Your task to perform on an android device: Show me popular videos on Youtube Image 0: 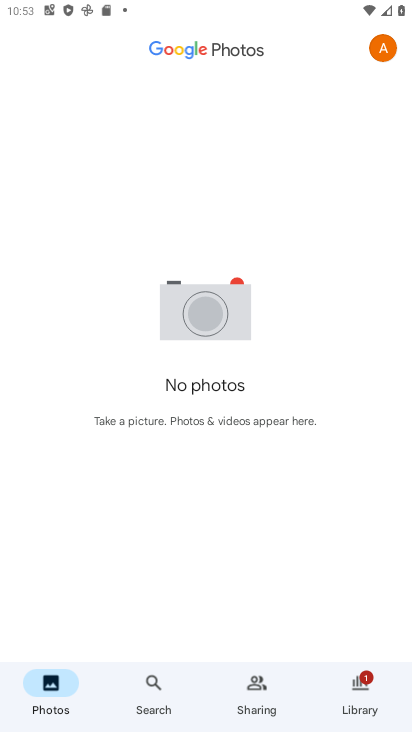
Step 0: press home button
Your task to perform on an android device: Show me popular videos on Youtube Image 1: 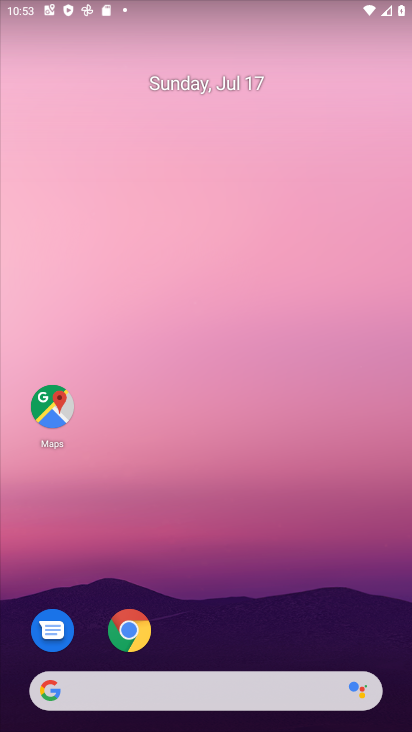
Step 1: drag from (224, 636) to (229, 22)
Your task to perform on an android device: Show me popular videos on Youtube Image 2: 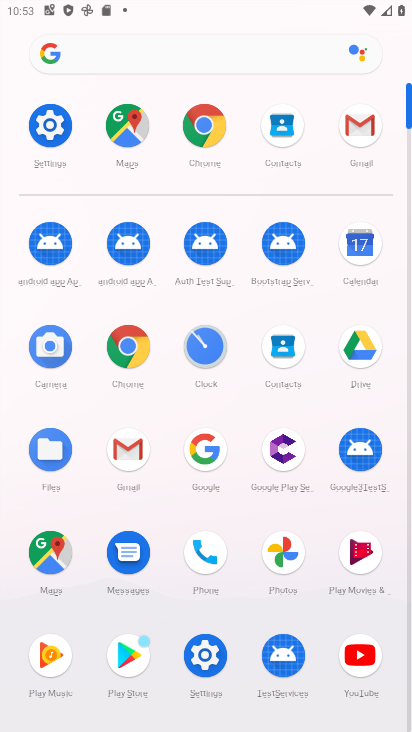
Step 2: click (351, 649)
Your task to perform on an android device: Show me popular videos on Youtube Image 3: 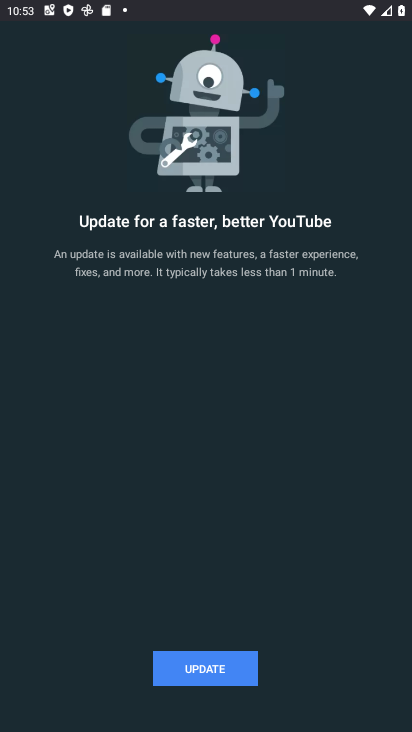
Step 3: click (204, 678)
Your task to perform on an android device: Show me popular videos on Youtube Image 4: 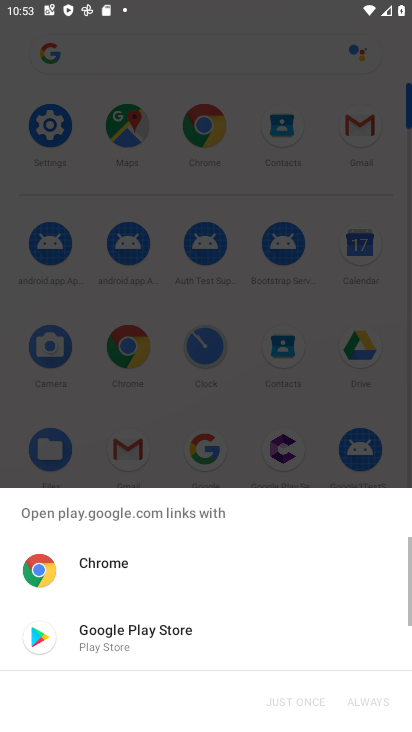
Step 4: click (181, 632)
Your task to perform on an android device: Show me popular videos on Youtube Image 5: 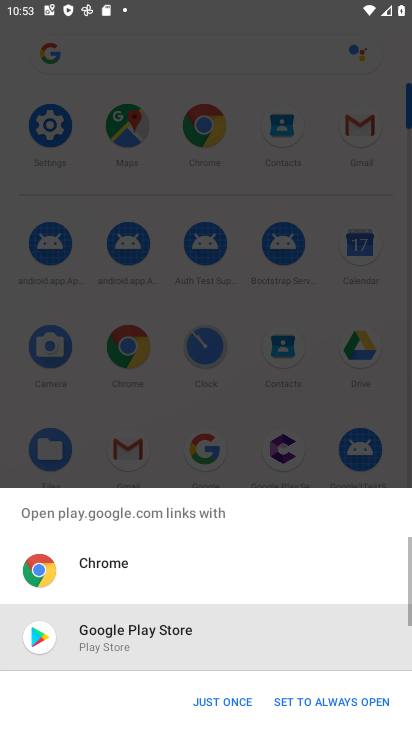
Step 5: click (272, 686)
Your task to perform on an android device: Show me popular videos on Youtube Image 6: 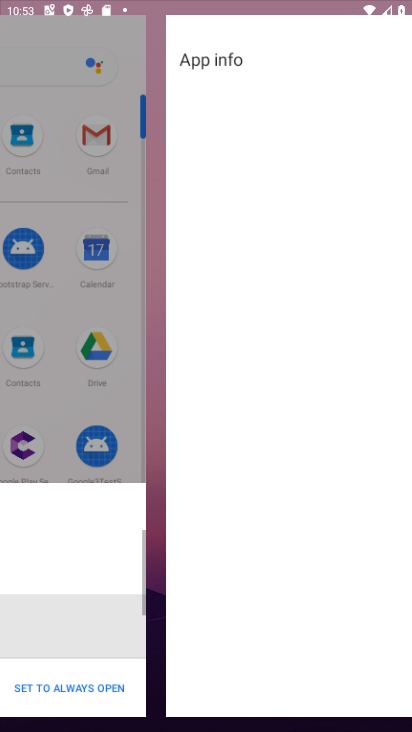
Step 6: click (220, 688)
Your task to perform on an android device: Show me popular videos on Youtube Image 7: 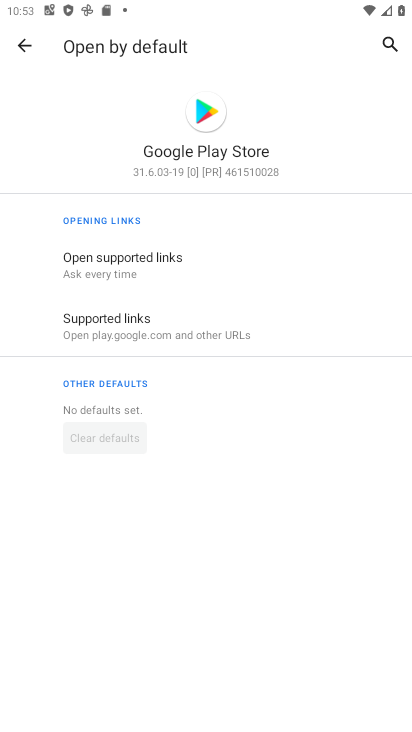
Step 7: task complete